Your task to perform on an android device: Add jbl charge 4 to the cart on costco, then select checkout. Image 0: 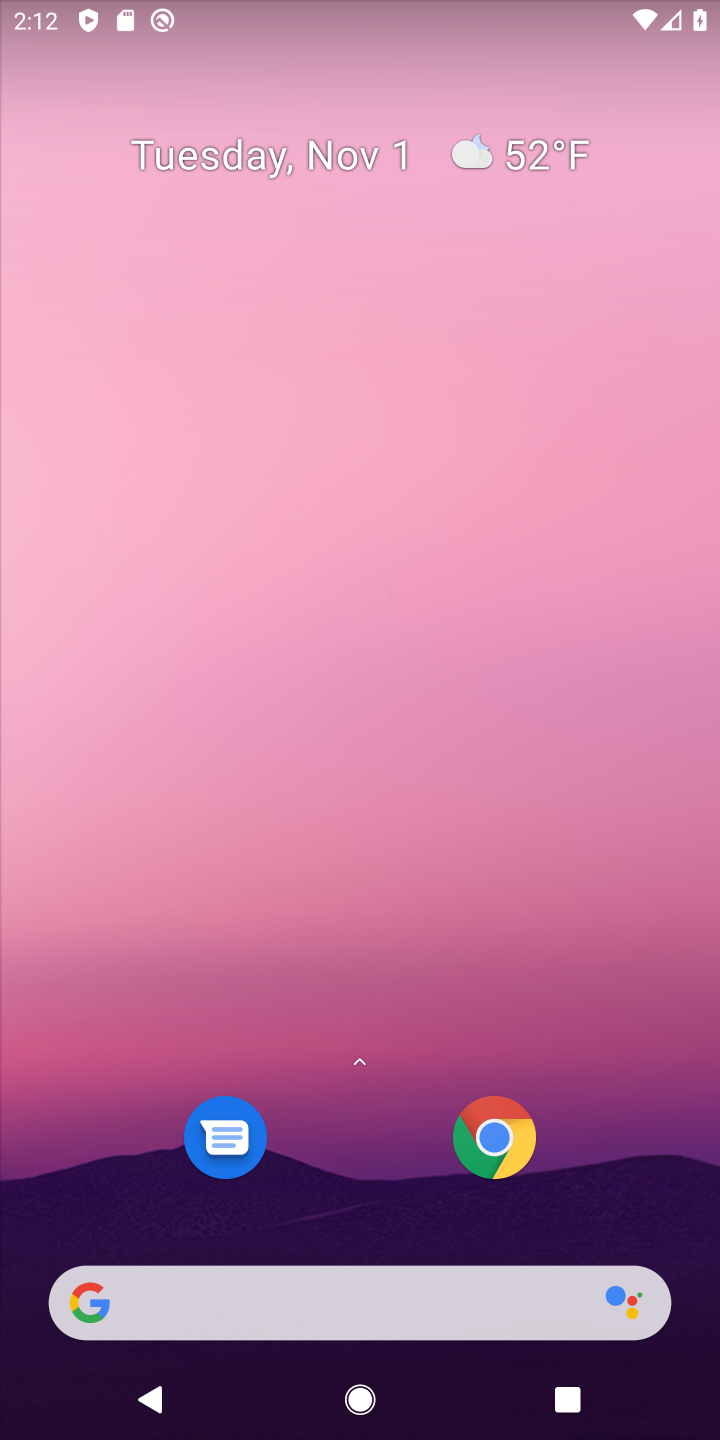
Step 0: click (355, 1301)
Your task to perform on an android device: Add jbl charge 4 to the cart on costco, then select checkout. Image 1: 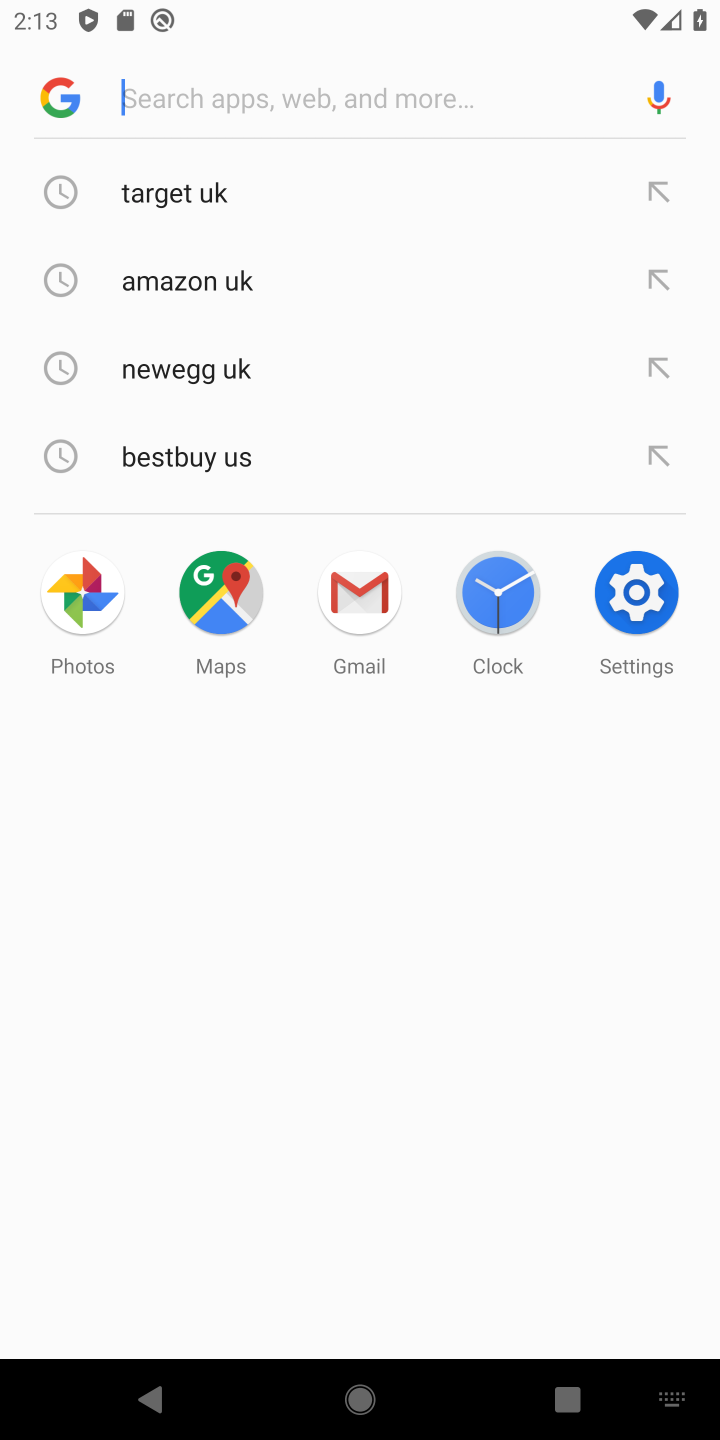
Step 1: type "costco"
Your task to perform on an android device: Add jbl charge 4 to the cart on costco, then select checkout. Image 2: 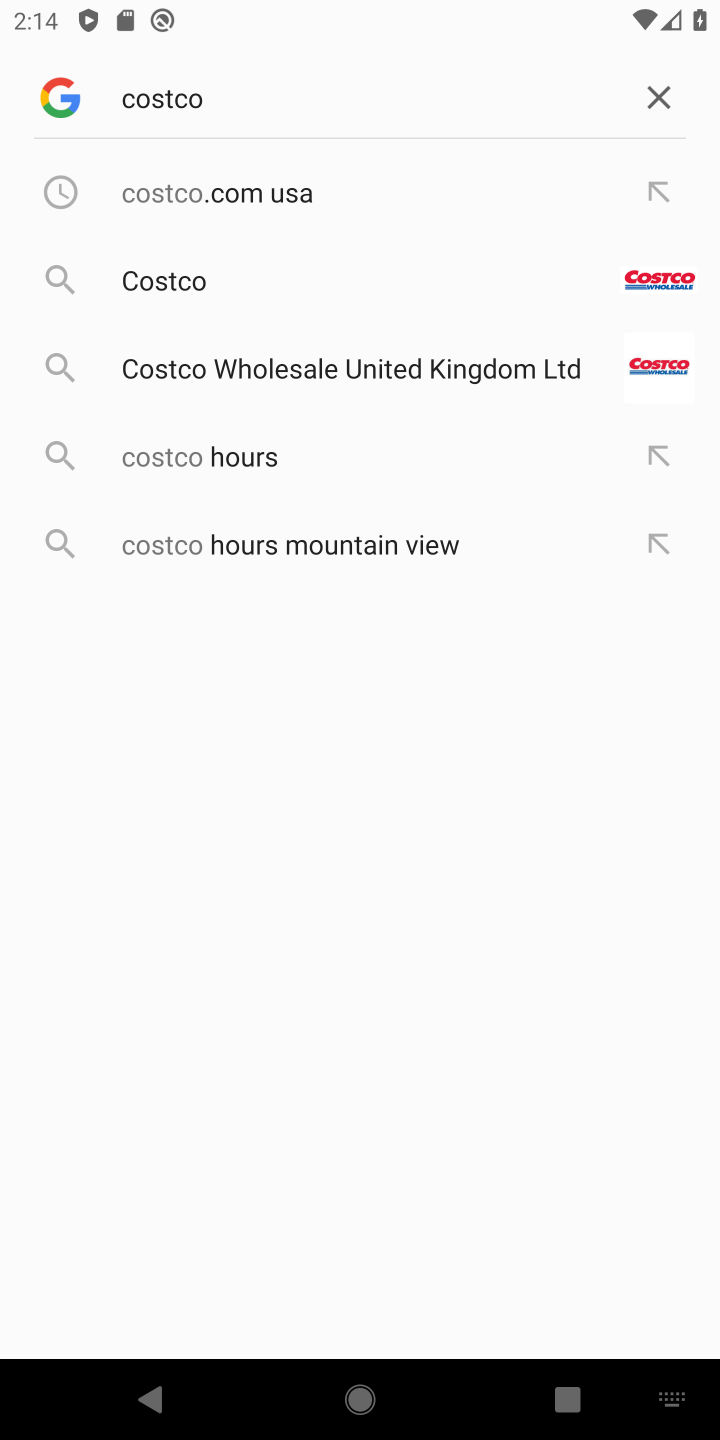
Step 2: click (191, 184)
Your task to perform on an android device: Add jbl charge 4 to the cart on costco, then select checkout. Image 3: 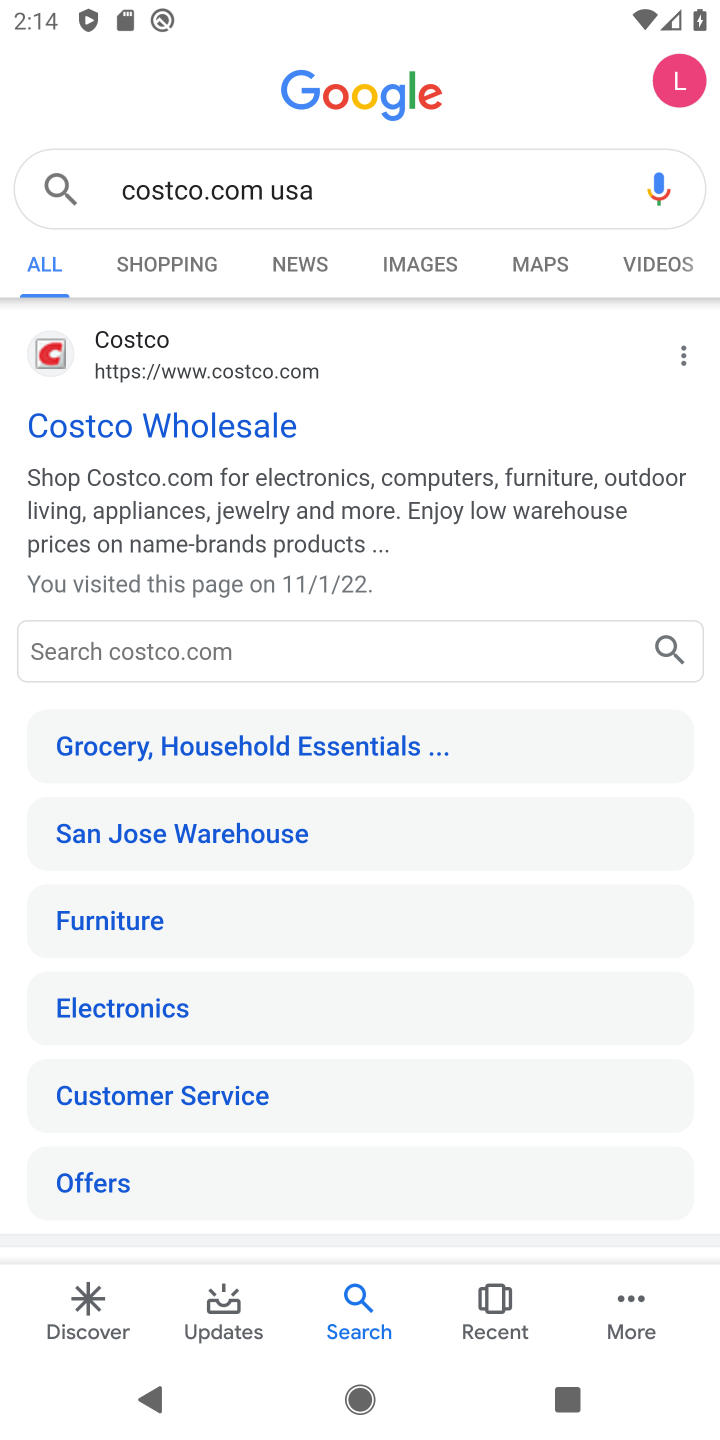
Step 3: click (256, 418)
Your task to perform on an android device: Add jbl charge 4 to the cart on costco, then select checkout. Image 4: 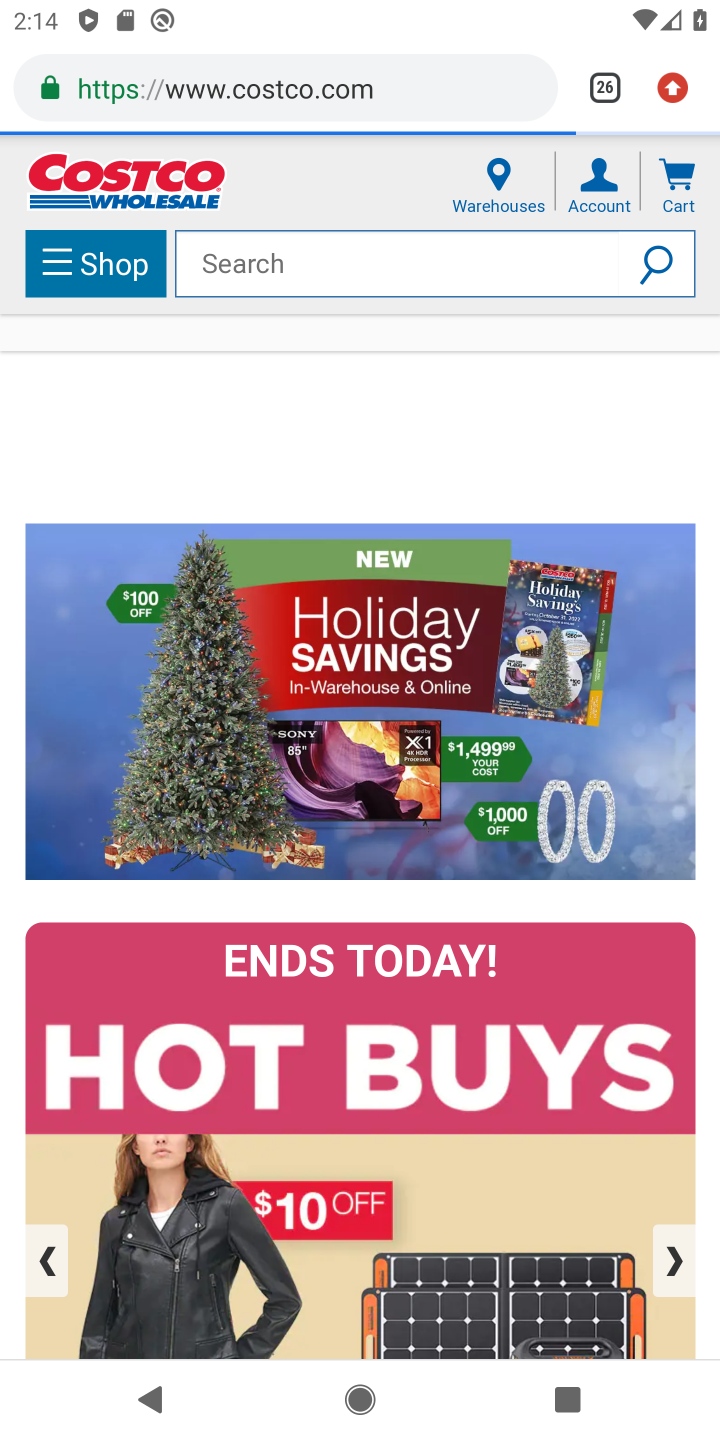
Step 4: click (277, 236)
Your task to perform on an android device: Add jbl charge 4 to the cart on costco, then select checkout. Image 5: 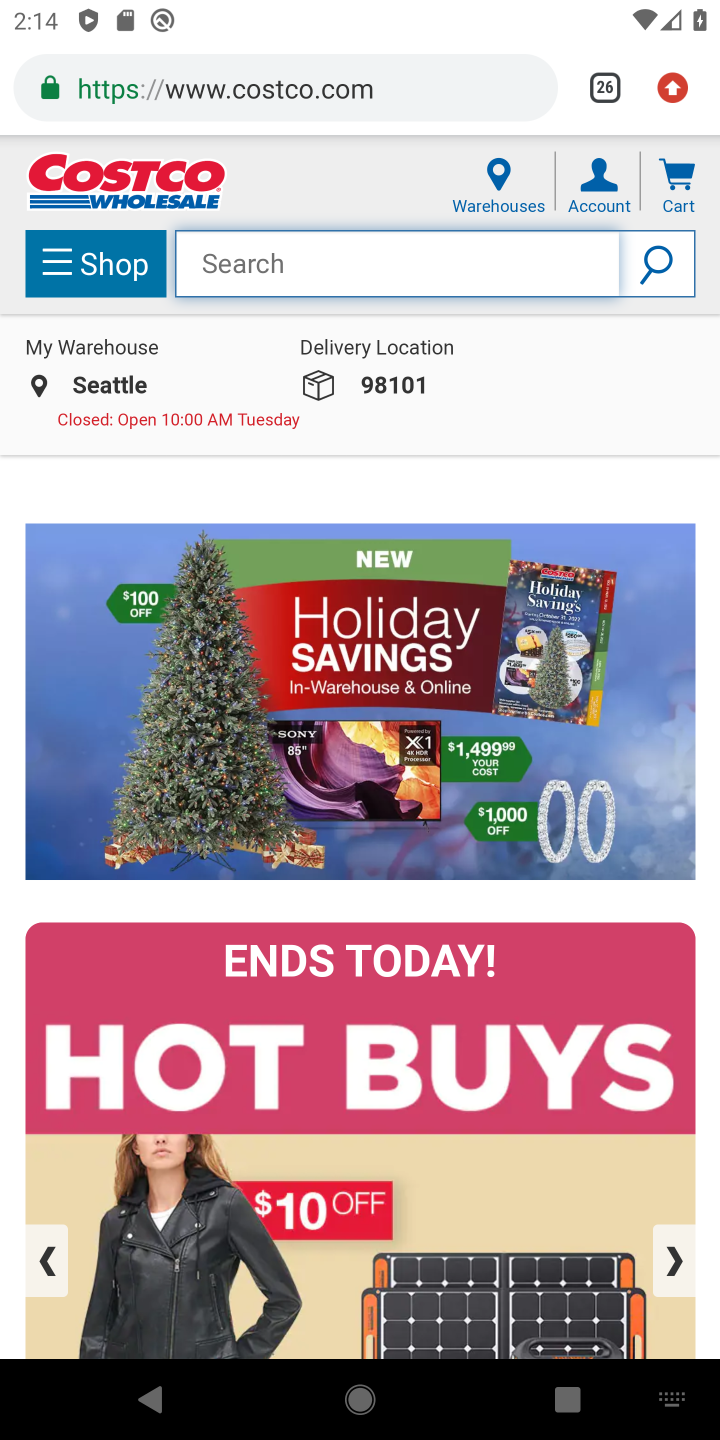
Step 5: type "jbl charge"
Your task to perform on an android device: Add jbl charge 4 to the cart on costco, then select checkout. Image 6: 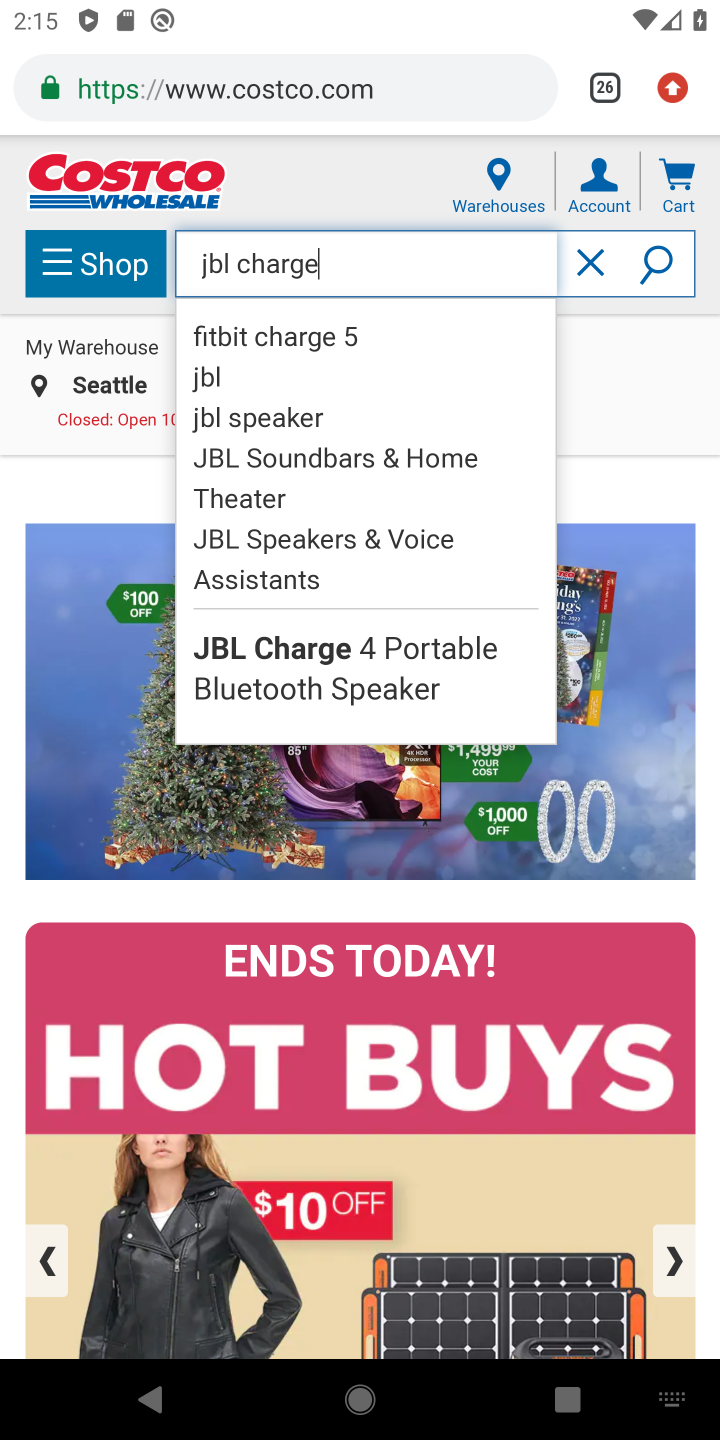
Step 6: click (641, 483)
Your task to perform on an android device: Add jbl charge 4 to the cart on costco, then select checkout. Image 7: 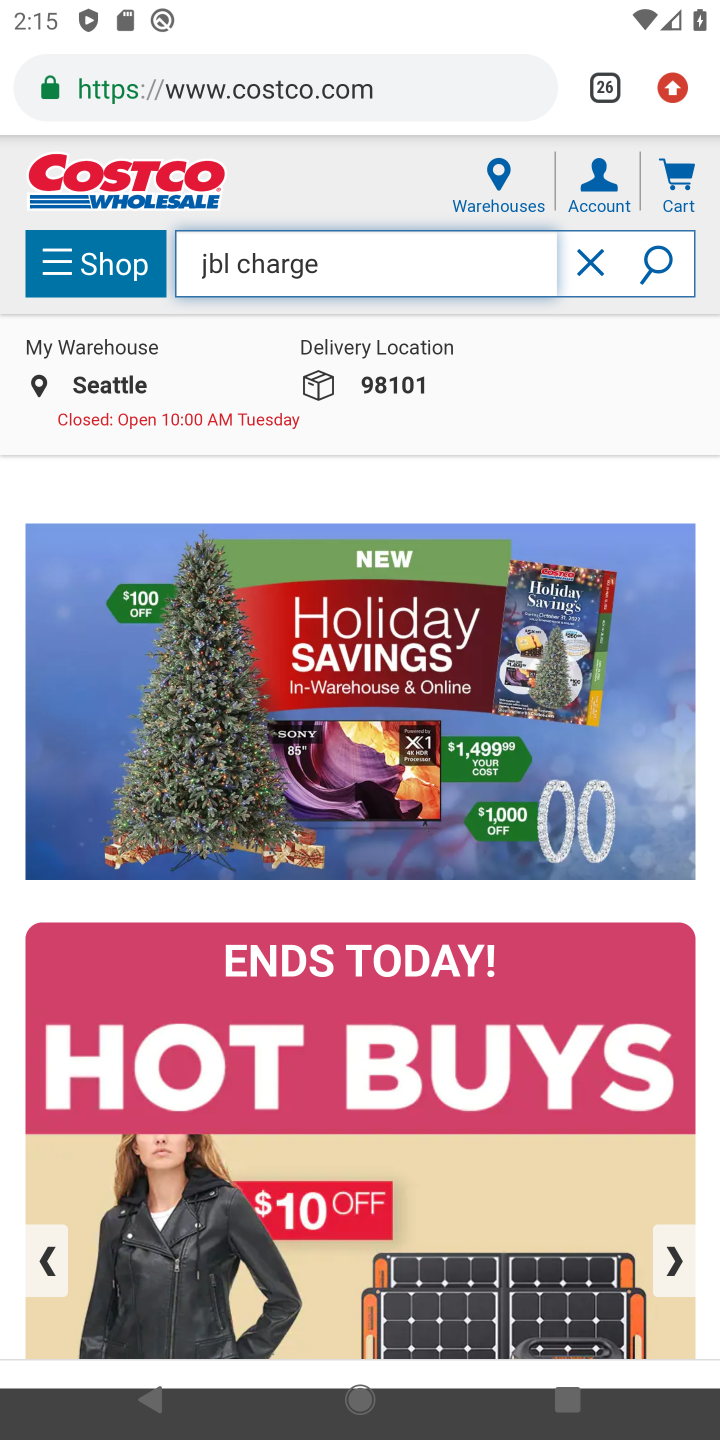
Step 7: click (648, 266)
Your task to perform on an android device: Add jbl charge 4 to the cart on costco, then select checkout. Image 8: 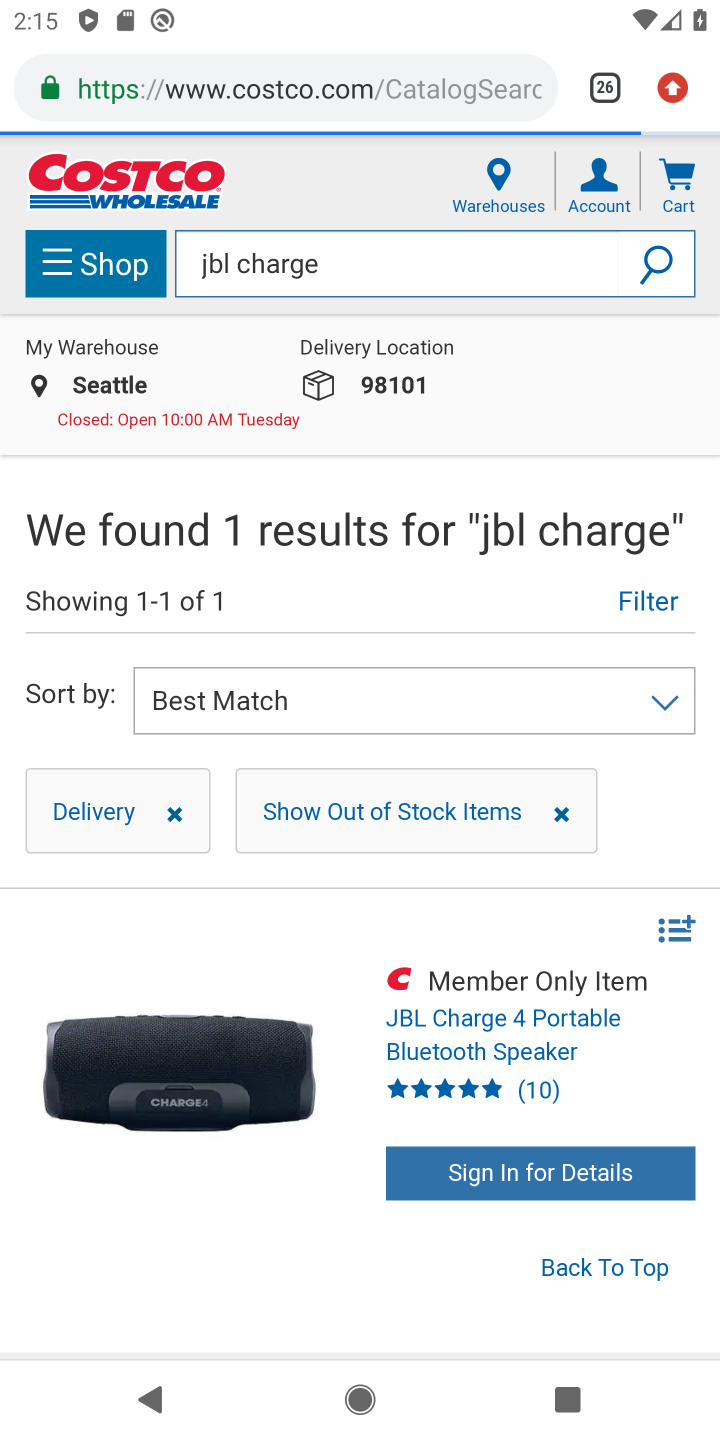
Step 8: click (420, 1012)
Your task to perform on an android device: Add jbl charge 4 to the cart on costco, then select checkout. Image 9: 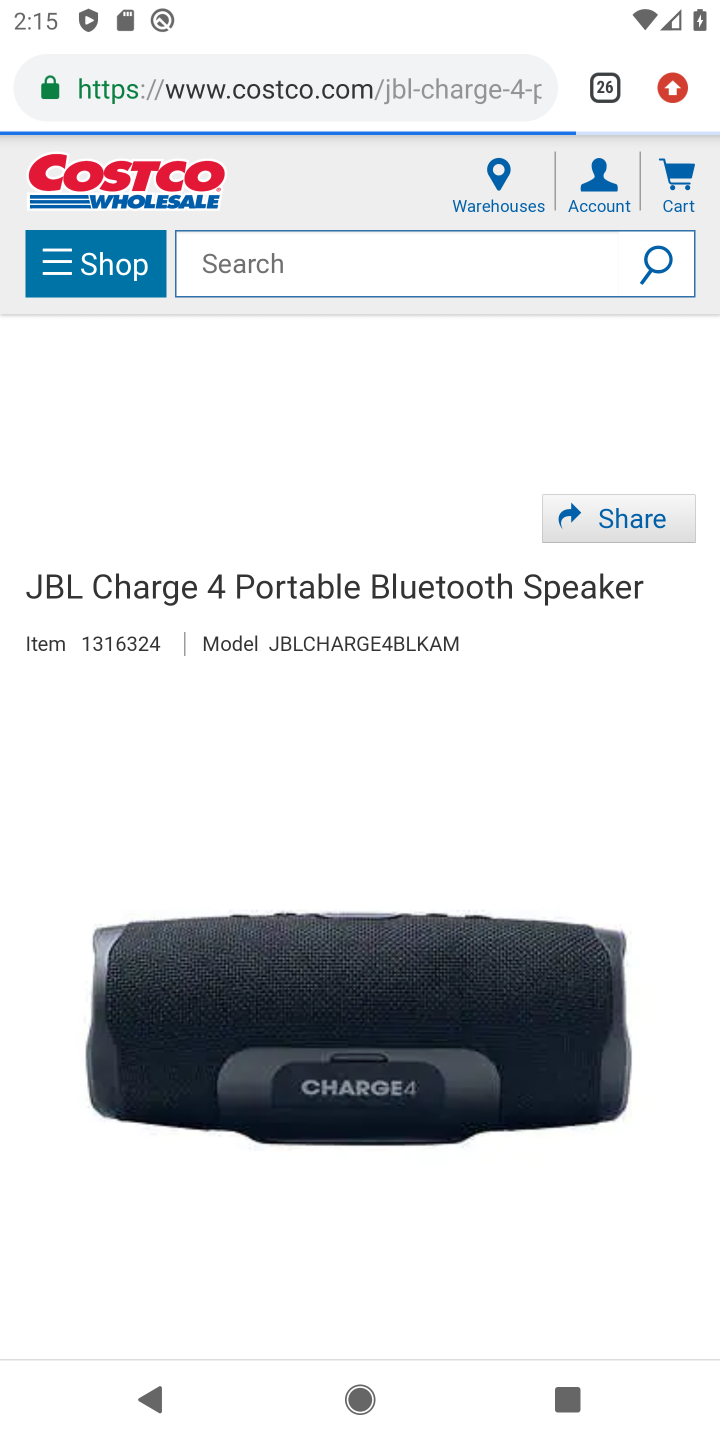
Step 9: drag from (452, 1093) to (352, 528)
Your task to perform on an android device: Add jbl charge 4 to the cart on costco, then select checkout. Image 10: 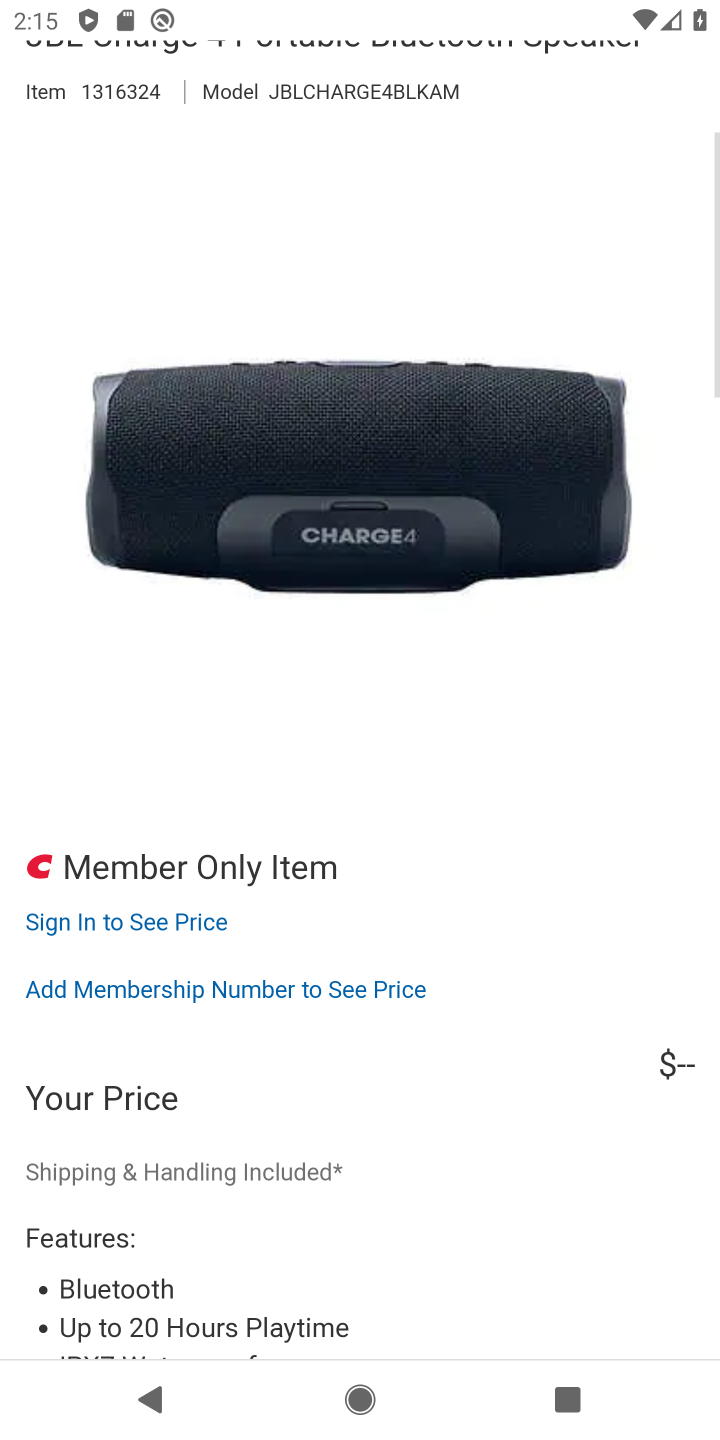
Step 10: drag from (277, 1201) to (325, 480)
Your task to perform on an android device: Add jbl charge 4 to the cart on costco, then select checkout. Image 11: 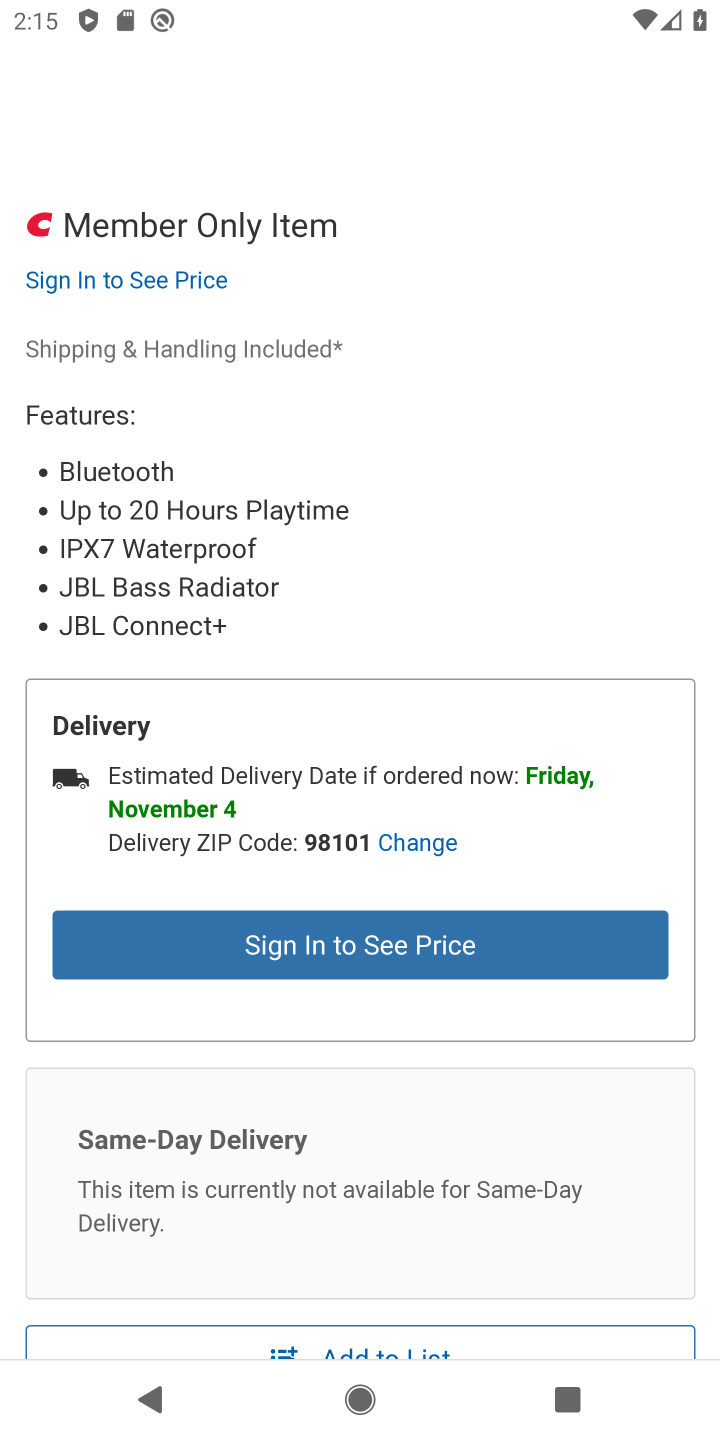
Step 11: click (433, 1073)
Your task to perform on an android device: Add jbl charge 4 to the cart on costco, then select checkout. Image 12: 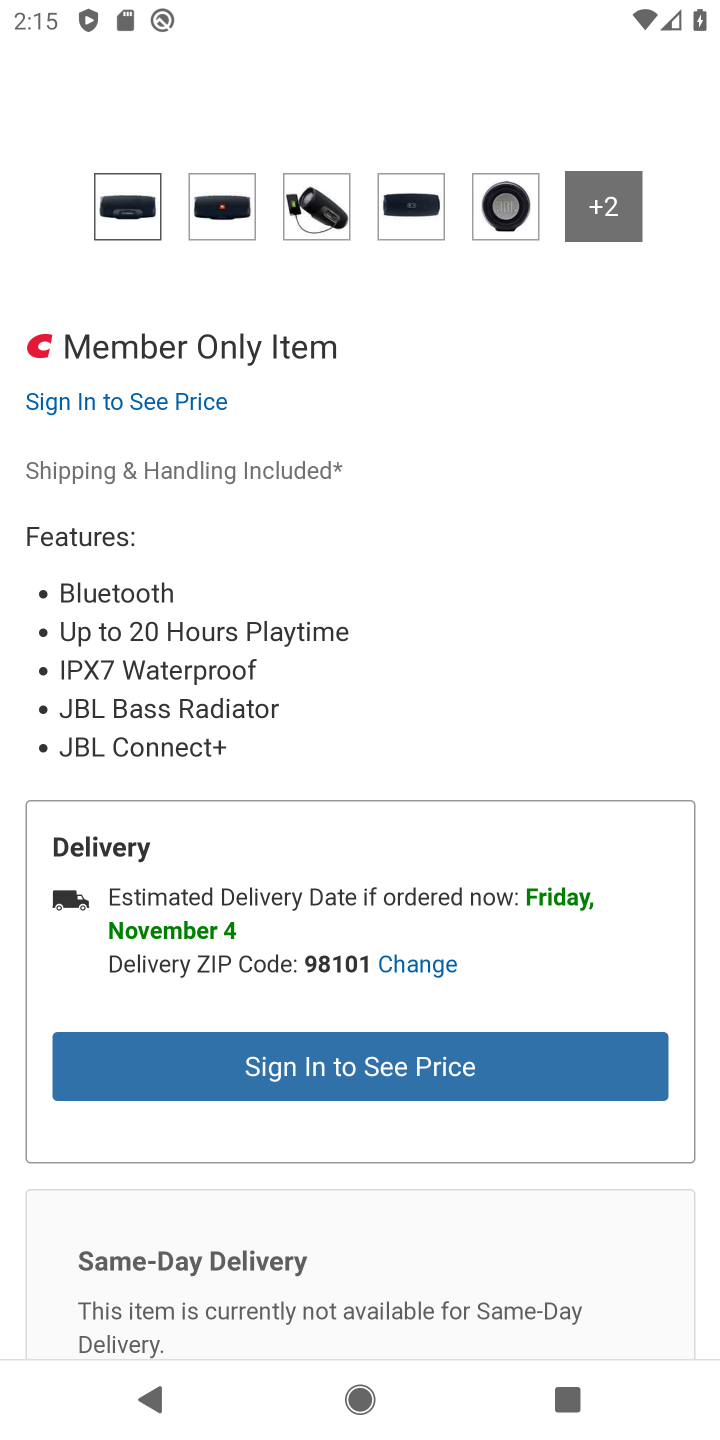
Step 12: click (506, 1346)
Your task to perform on an android device: Add jbl charge 4 to the cart on costco, then select checkout. Image 13: 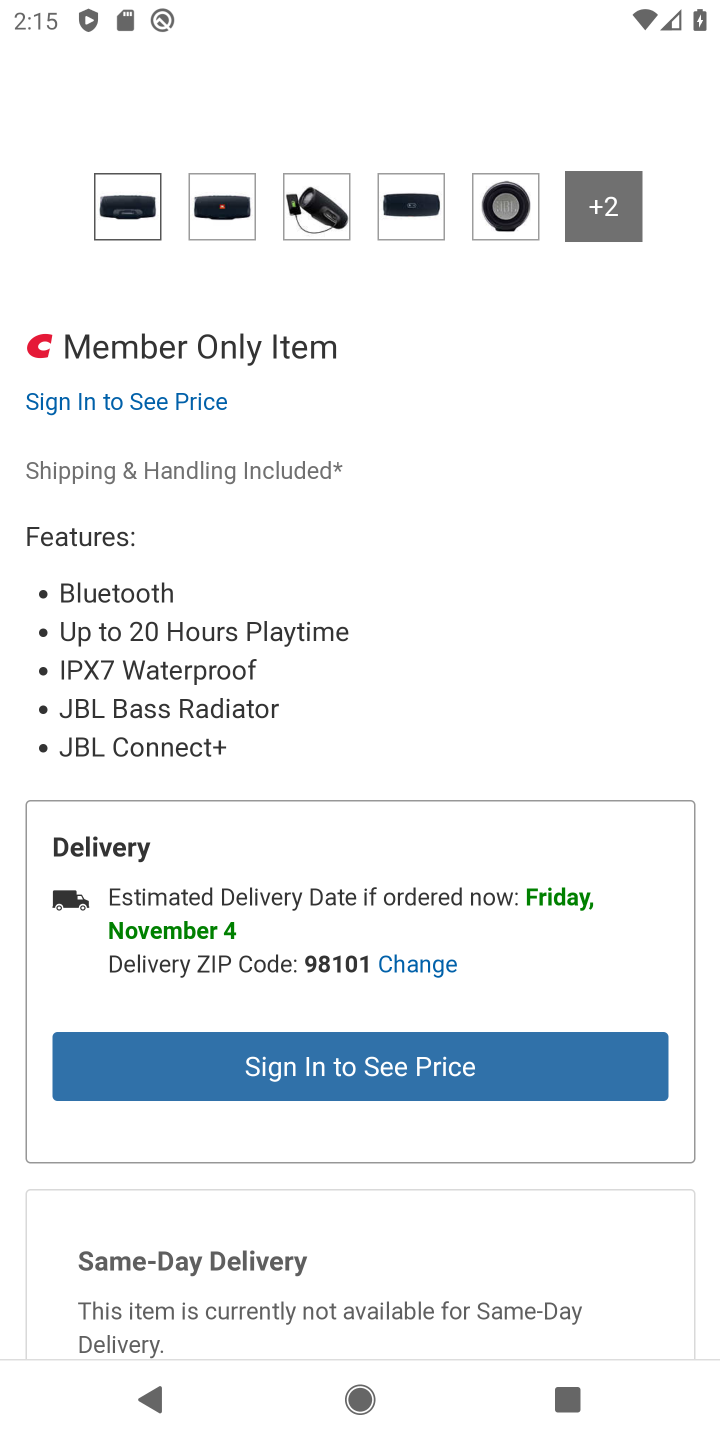
Step 13: task complete